Your task to perform on an android device: open chrome and create a bookmark for the current page Image 0: 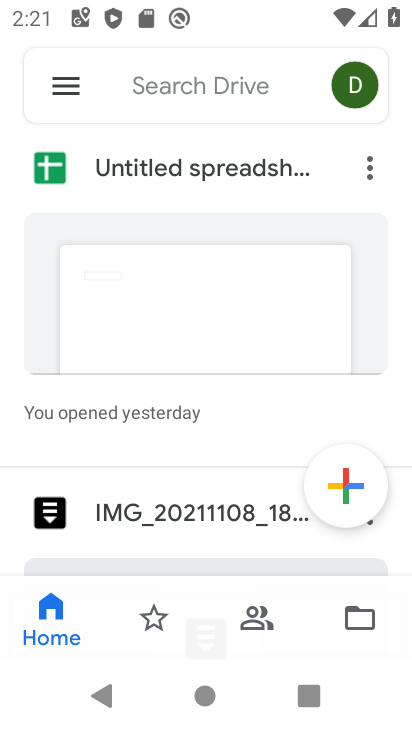
Step 0: press home button
Your task to perform on an android device: open chrome and create a bookmark for the current page Image 1: 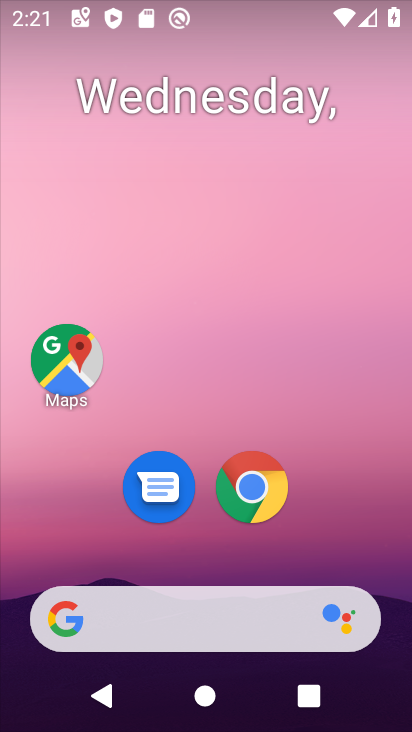
Step 1: click (254, 491)
Your task to perform on an android device: open chrome and create a bookmark for the current page Image 2: 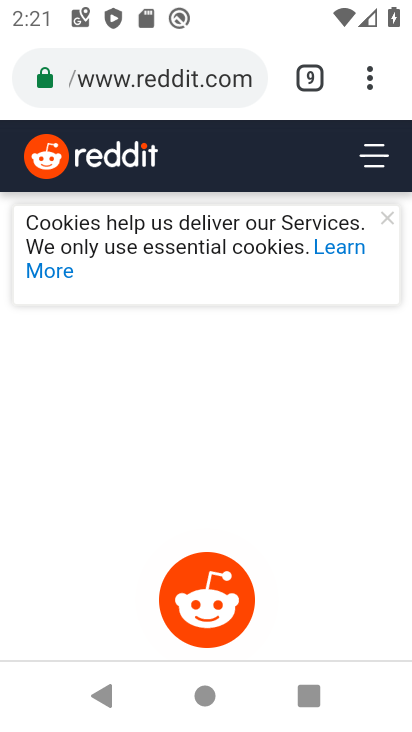
Step 2: click (368, 69)
Your task to perform on an android device: open chrome and create a bookmark for the current page Image 3: 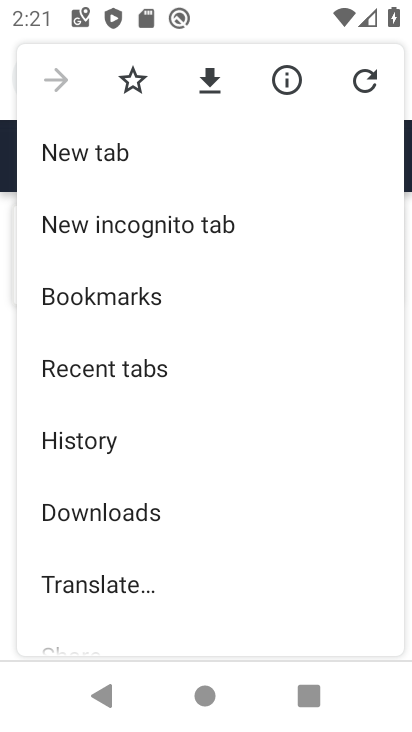
Step 3: click (133, 79)
Your task to perform on an android device: open chrome and create a bookmark for the current page Image 4: 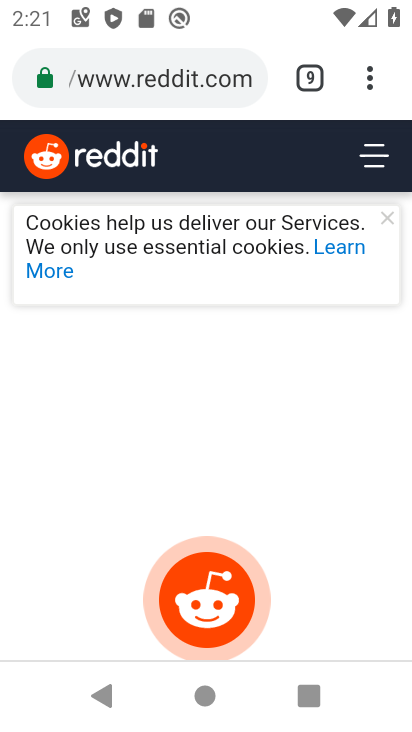
Step 4: click (364, 73)
Your task to perform on an android device: open chrome and create a bookmark for the current page Image 5: 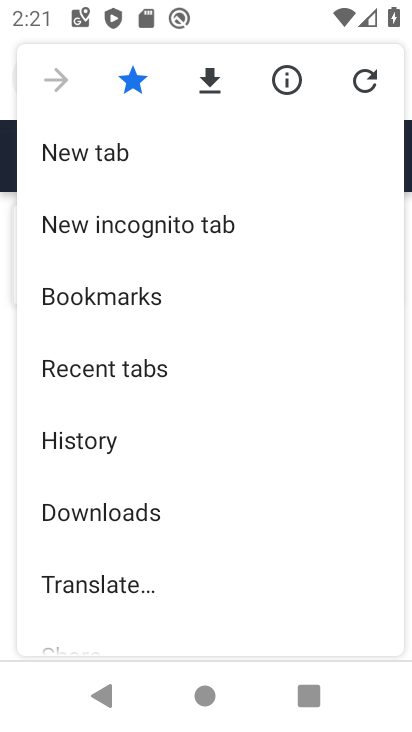
Step 5: task complete